Your task to perform on an android device: Open display settings Image 0: 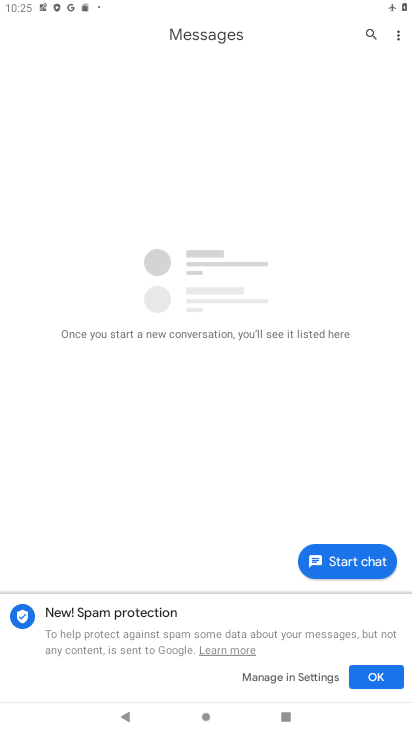
Step 0: press home button
Your task to perform on an android device: Open display settings Image 1: 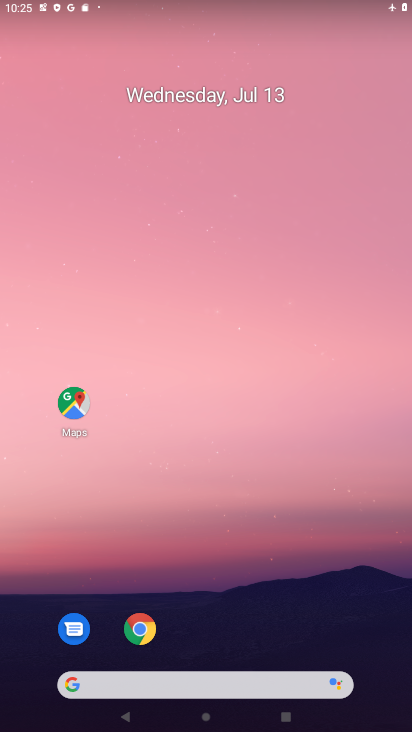
Step 1: drag from (249, 619) to (196, 94)
Your task to perform on an android device: Open display settings Image 2: 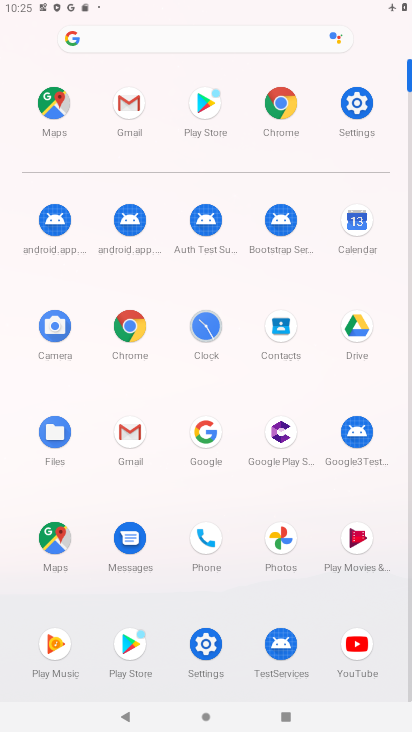
Step 2: click (354, 127)
Your task to perform on an android device: Open display settings Image 3: 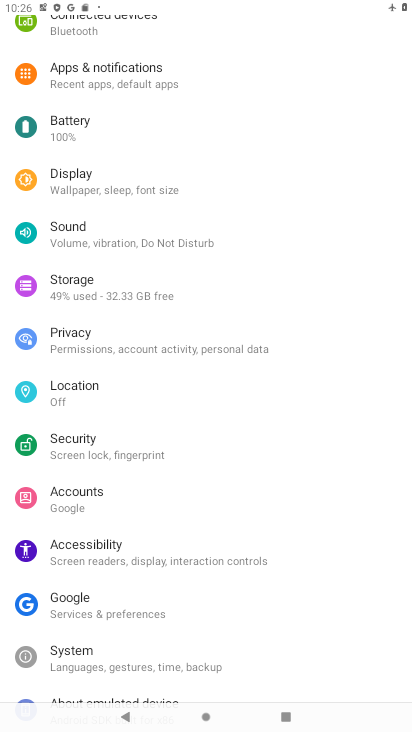
Step 3: click (221, 201)
Your task to perform on an android device: Open display settings Image 4: 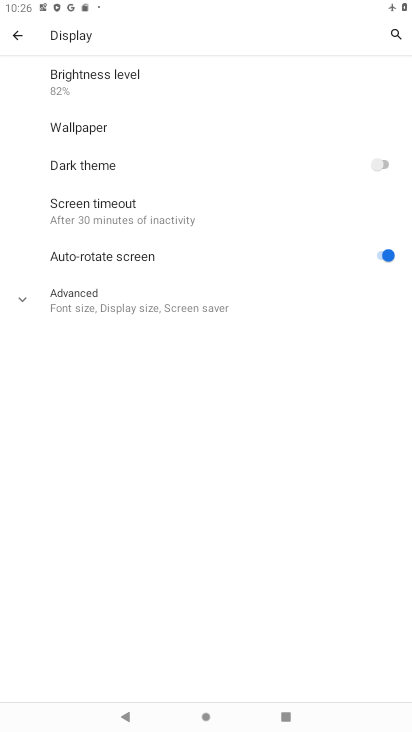
Step 4: click (114, 294)
Your task to perform on an android device: Open display settings Image 5: 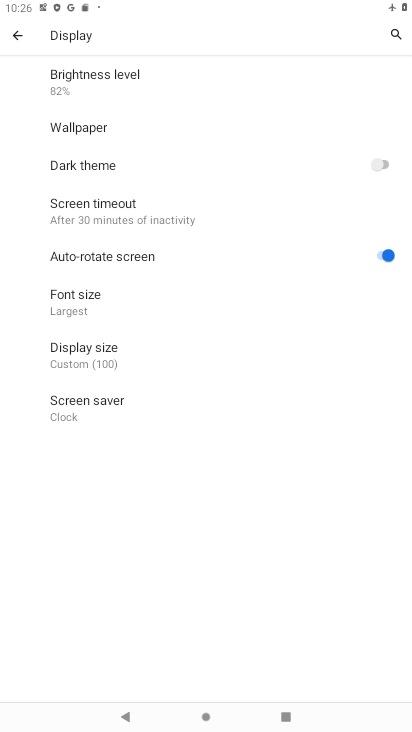
Step 5: click (134, 357)
Your task to perform on an android device: Open display settings Image 6: 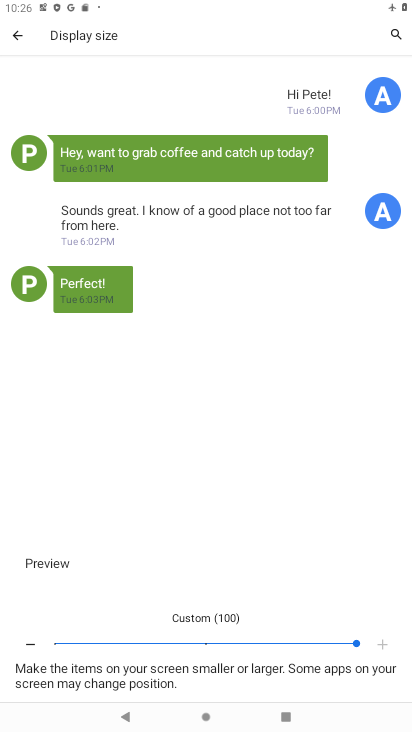
Step 6: task complete